Your task to perform on an android device: toggle improve location accuracy Image 0: 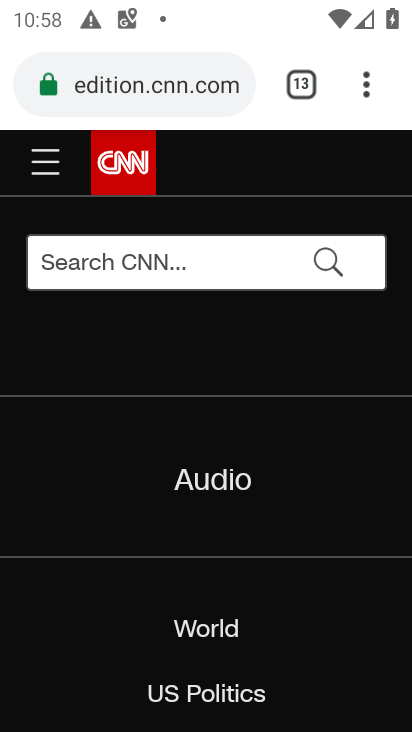
Step 0: press home button
Your task to perform on an android device: toggle improve location accuracy Image 1: 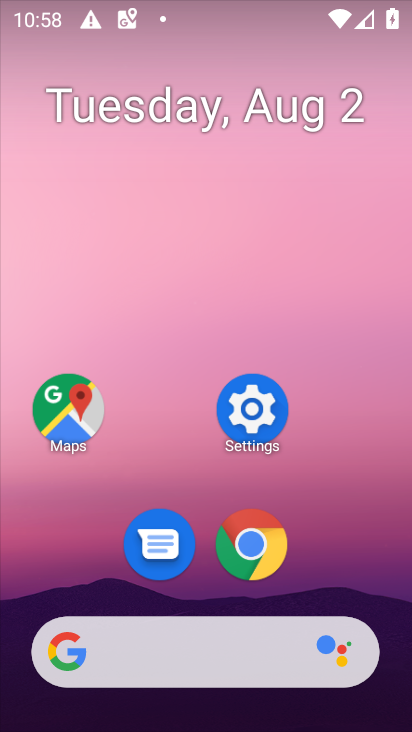
Step 1: click (243, 403)
Your task to perform on an android device: toggle improve location accuracy Image 2: 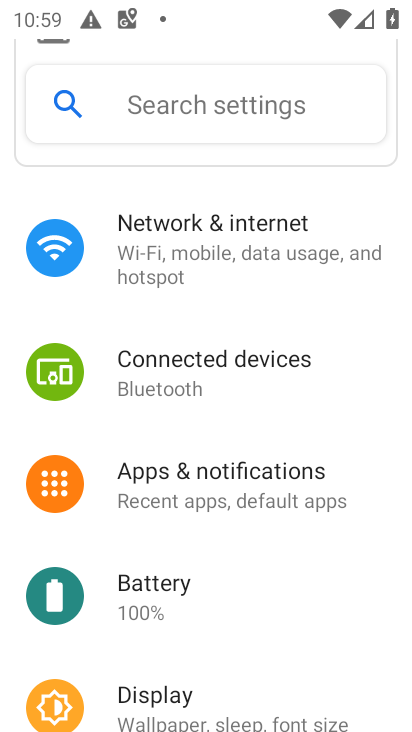
Step 2: drag from (258, 347) to (335, 88)
Your task to perform on an android device: toggle improve location accuracy Image 3: 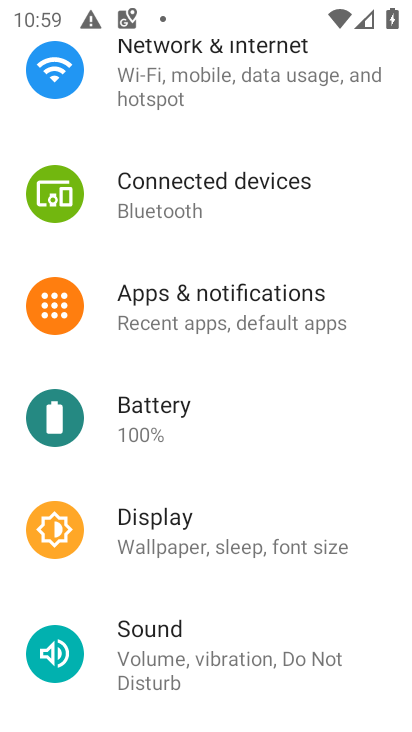
Step 3: drag from (213, 546) to (352, 238)
Your task to perform on an android device: toggle improve location accuracy Image 4: 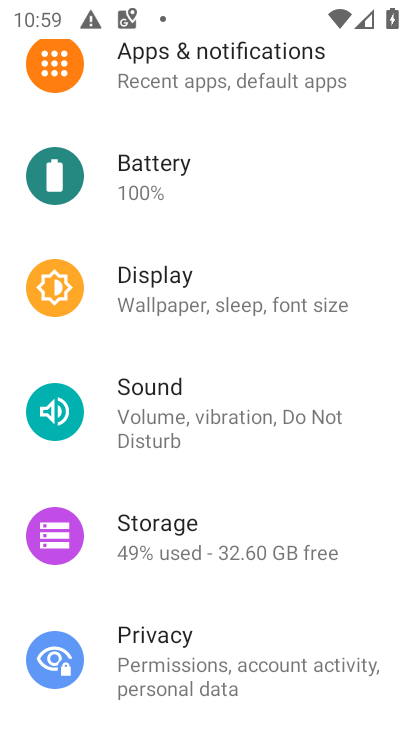
Step 4: drag from (223, 625) to (313, 161)
Your task to perform on an android device: toggle improve location accuracy Image 5: 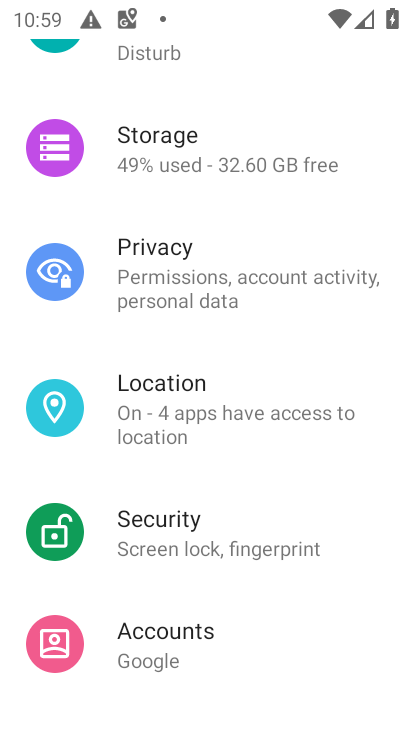
Step 5: click (200, 408)
Your task to perform on an android device: toggle improve location accuracy Image 6: 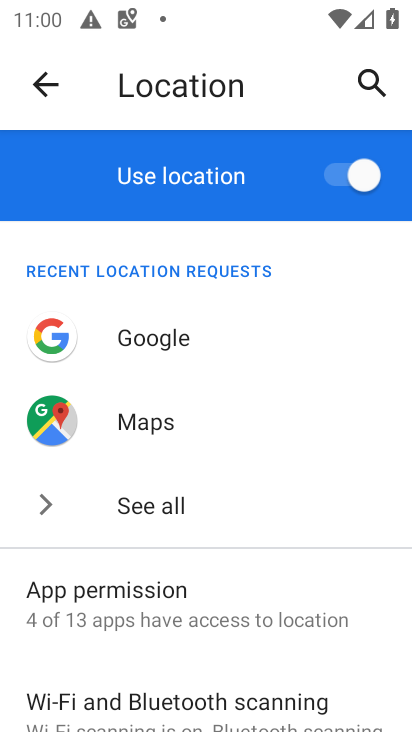
Step 6: drag from (190, 584) to (285, 130)
Your task to perform on an android device: toggle improve location accuracy Image 7: 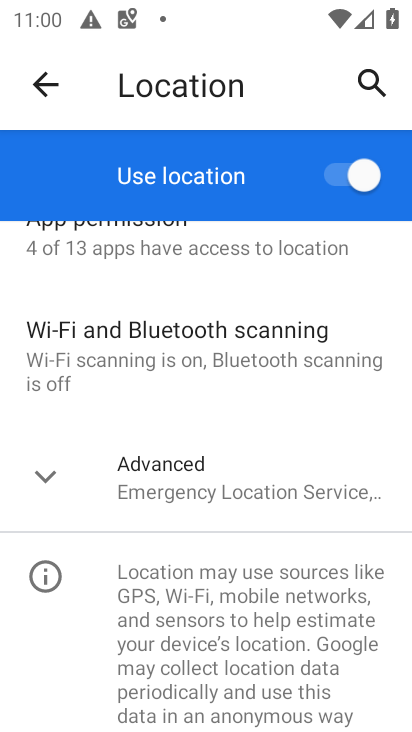
Step 7: click (186, 493)
Your task to perform on an android device: toggle improve location accuracy Image 8: 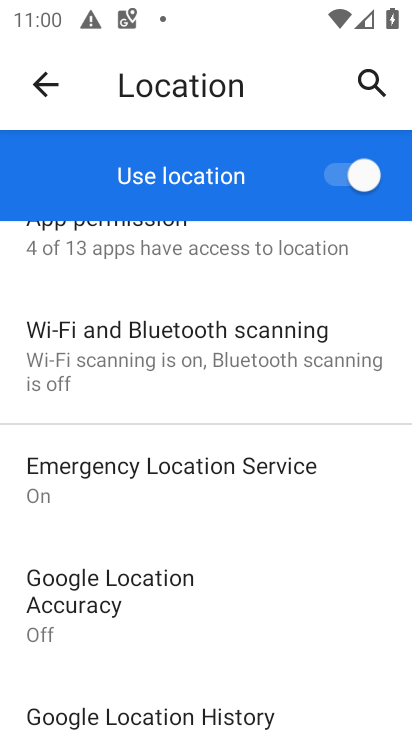
Step 8: click (133, 577)
Your task to perform on an android device: toggle improve location accuracy Image 9: 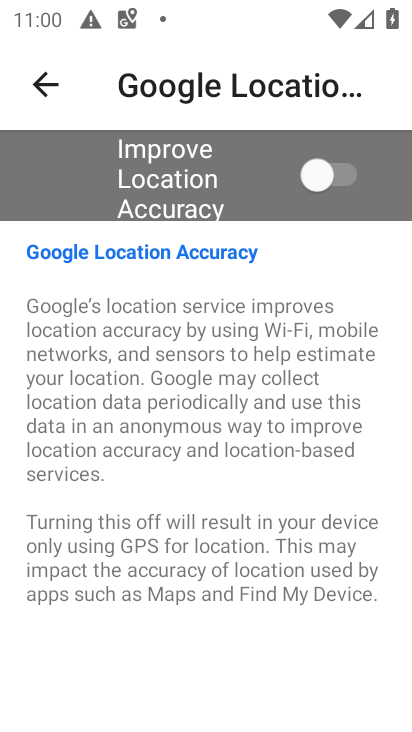
Step 9: click (344, 172)
Your task to perform on an android device: toggle improve location accuracy Image 10: 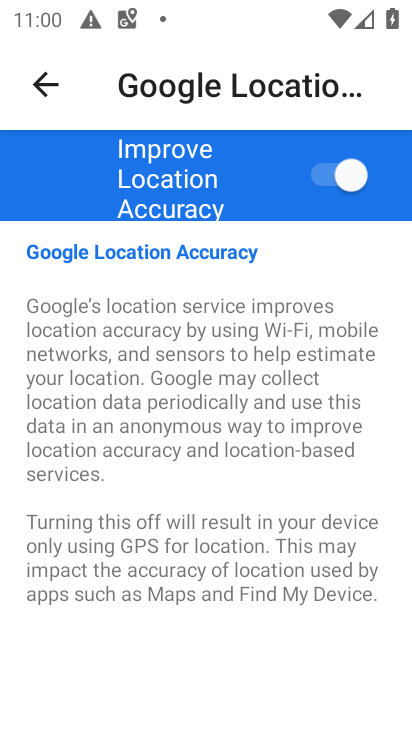
Step 10: task complete